Your task to perform on an android device: open wifi settings Image 0: 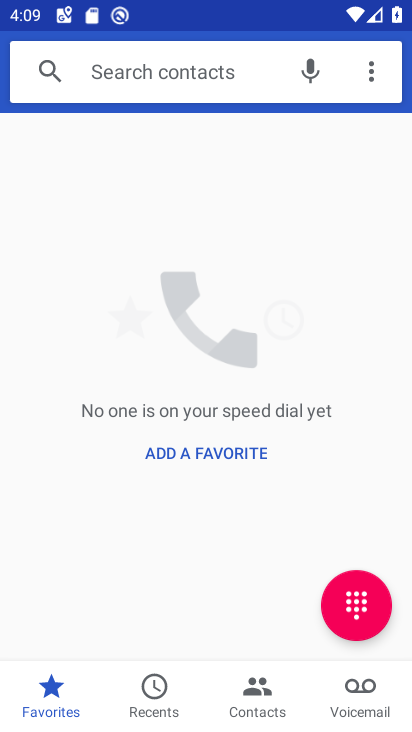
Step 0: press home button
Your task to perform on an android device: open wifi settings Image 1: 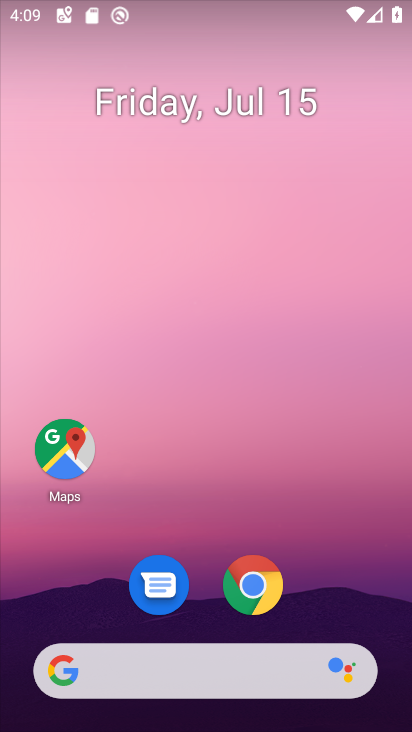
Step 1: drag from (329, 602) to (321, 18)
Your task to perform on an android device: open wifi settings Image 2: 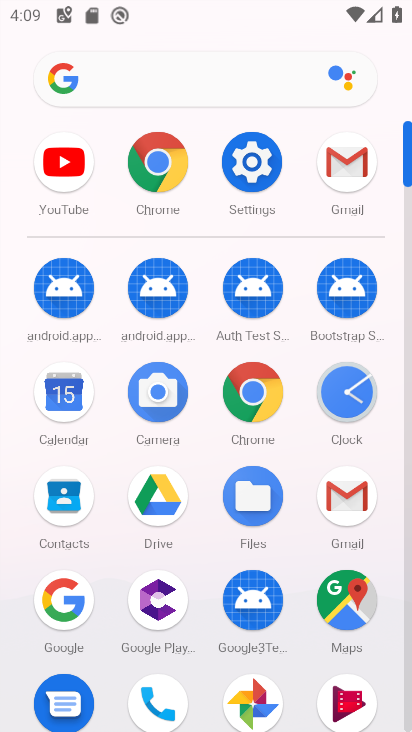
Step 2: click (258, 181)
Your task to perform on an android device: open wifi settings Image 3: 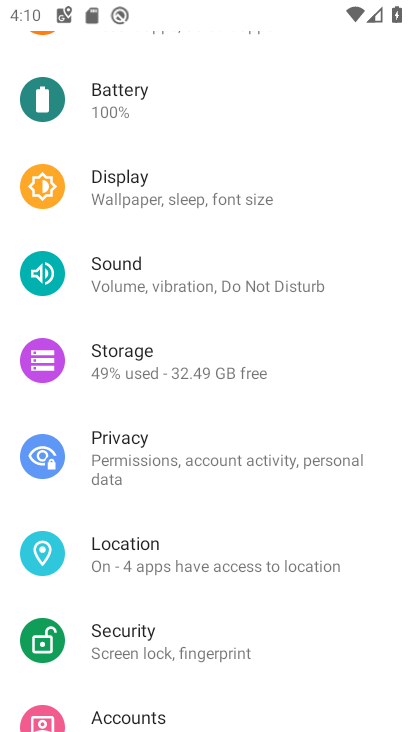
Step 3: drag from (202, 252) to (194, 647)
Your task to perform on an android device: open wifi settings Image 4: 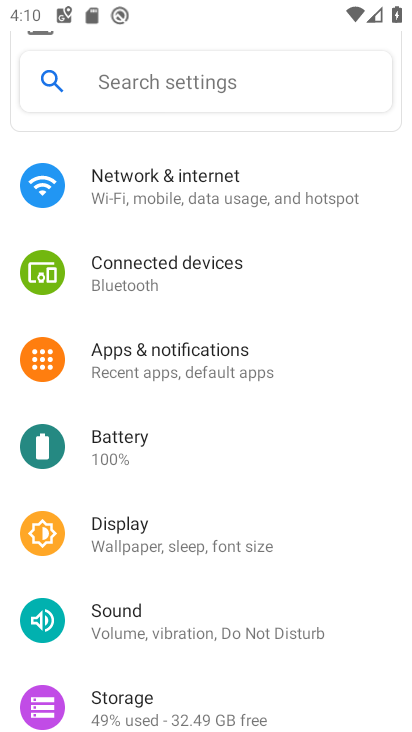
Step 4: click (226, 182)
Your task to perform on an android device: open wifi settings Image 5: 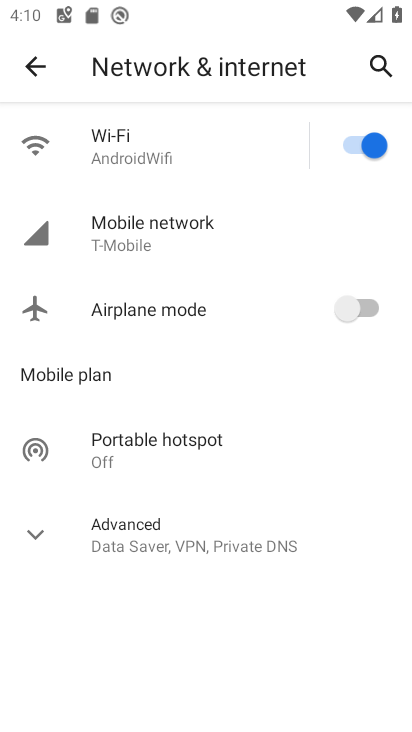
Step 5: click (142, 141)
Your task to perform on an android device: open wifi settings Image 6: 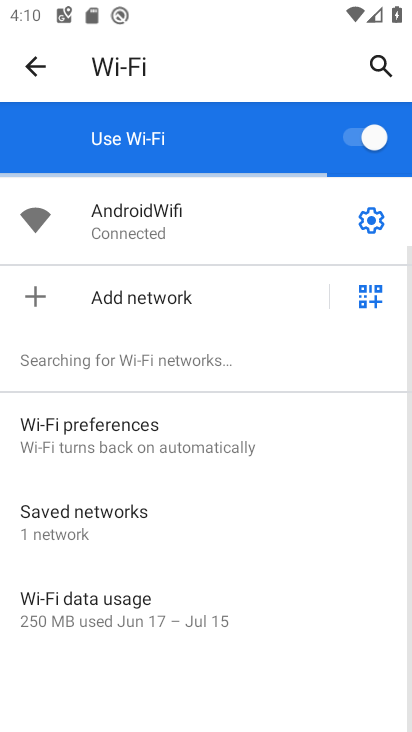
Step 6: task complete